Your task to perform on an android device: make emails show in primary in the gmail app Image 0: 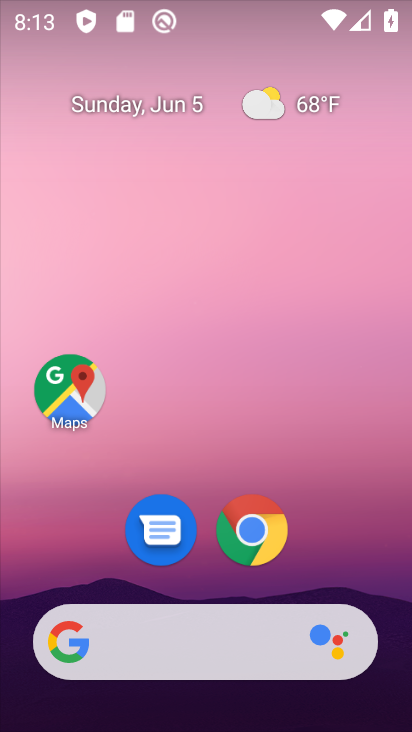
Step 0: drag from (403, 644) to (346, 97)
Your task to perform on an android device: make emails show in primary in the gmail app Image 1: 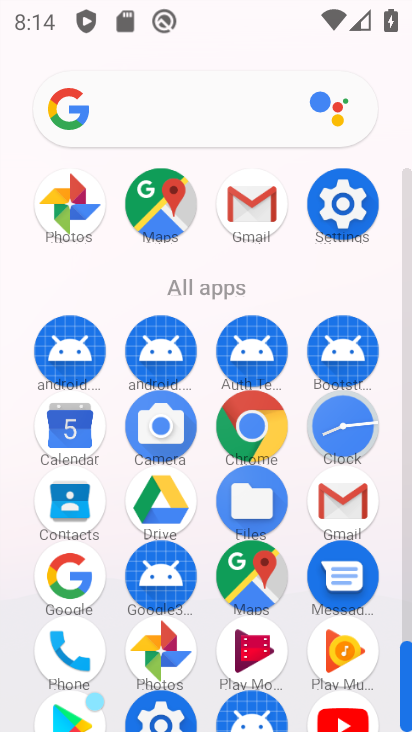
Step 1: click (338, 499)
Your task to perform on an android device: make emails show in primary in the gmail app Image 2: 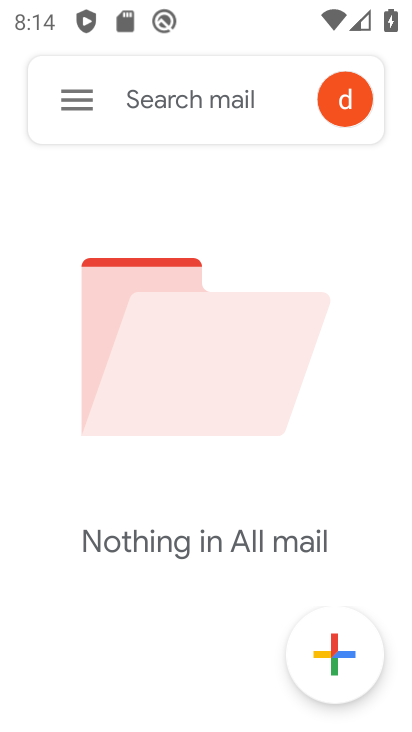
Step 2: click (76, 100)
Your task to perform on an android device: make emails show in primary in the gmail app Image 3: 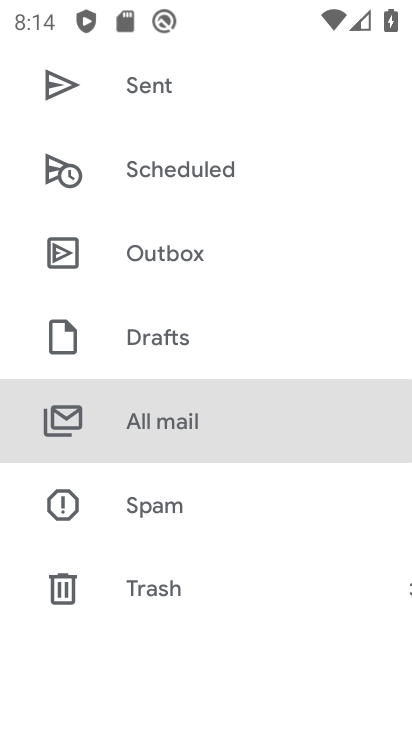
Step 3: drag from (243, 623) to (250, 131)
Your task to perform on an android device: make emails show in primary in the gmail app Image 4: 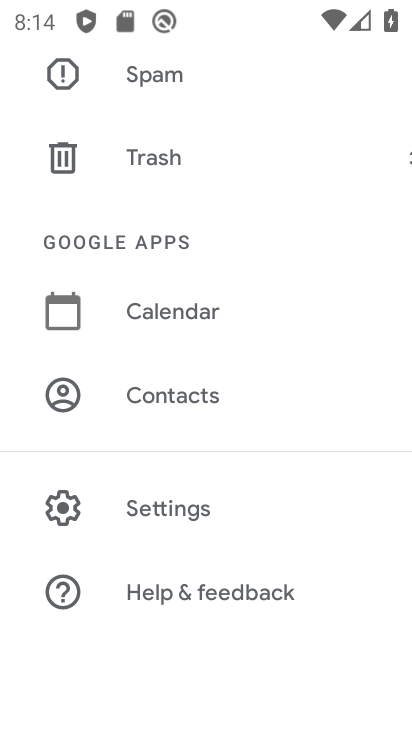
Step 4: click (182, 513)
Your task to perform on an android device: make emails show in primary in the gmail app Image 5: 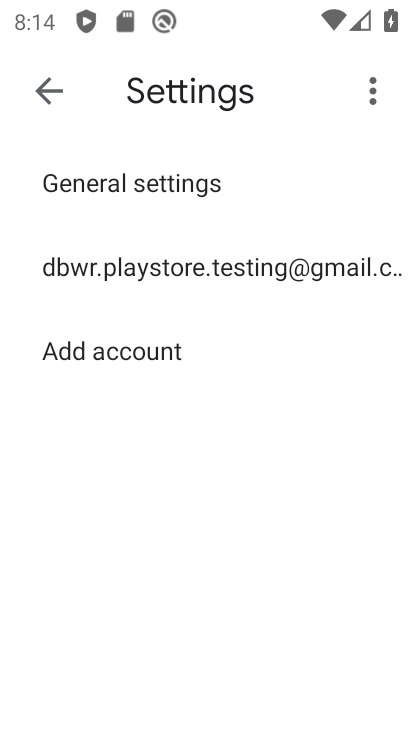
Step 5: click (211, 265)
Your task to perform on an android device: make emails show in primary in the gmail app Image 6: 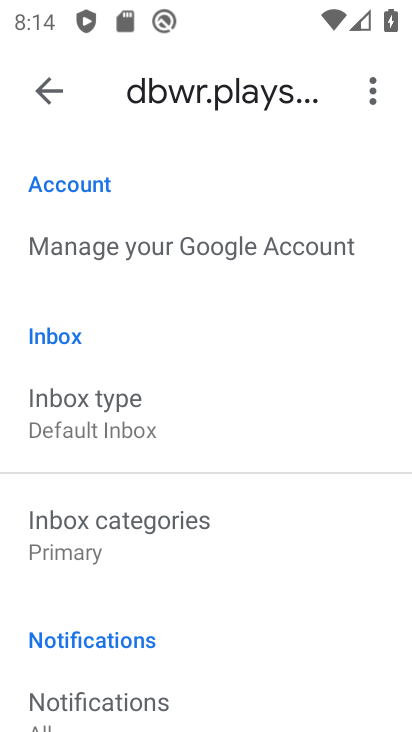
Step 6: click (89, 527)
Your task to perform on an android device: make emails show in primary in the gmail app Image 7: 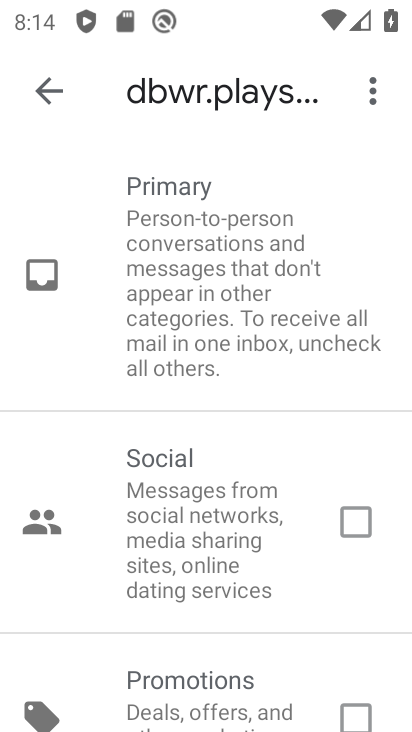
Step 7: task complete